Your task to perform on an android device: check out phone information Image 0: 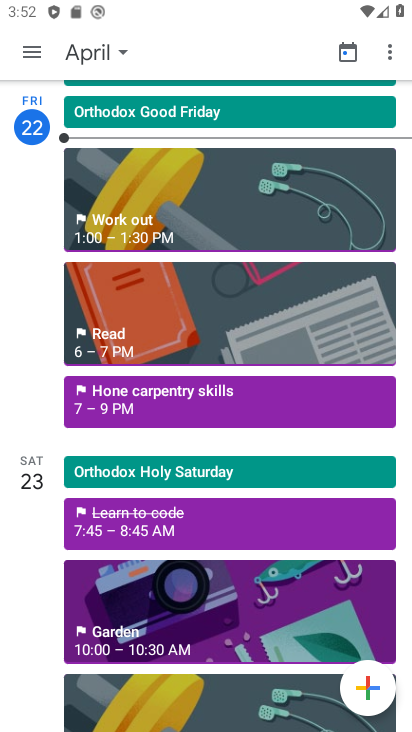
Step 0: press home button
Your task to perform on an android device: check out phone information Image 1: 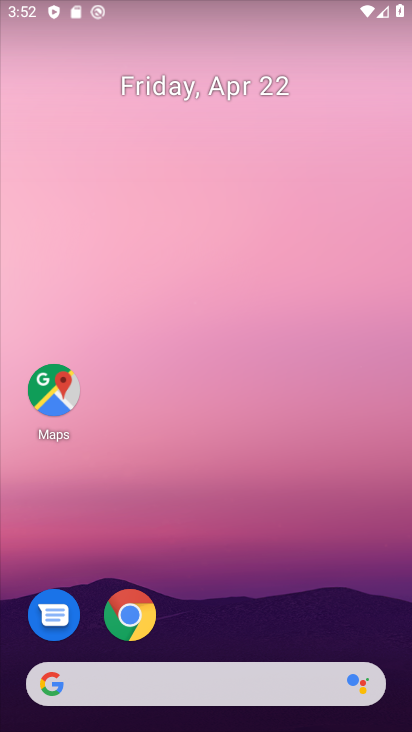
Step 1: drag from (312, 581) to (390, 147)
Your task to perform on an android device: check out phone information Image 2: 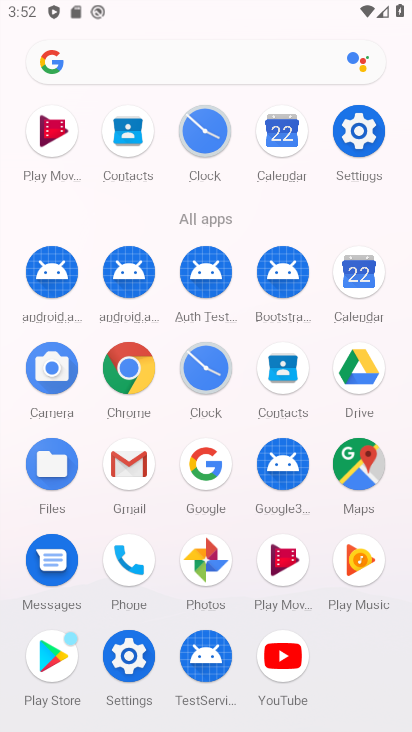
Step 2: click (133, 564)
Your task to perform on an android device: check out phone information Image 3: 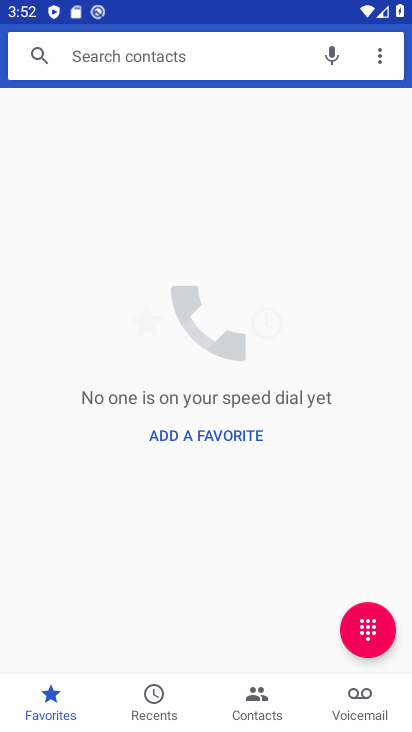
Step 3: click (379, 56)
Your task to perform on an android device: check out phone information Image 4: 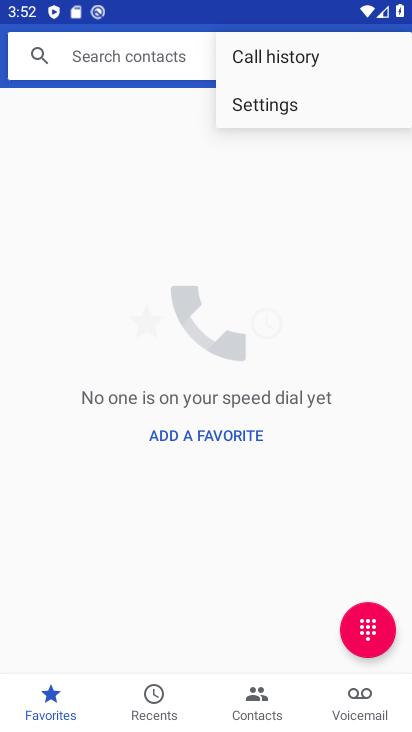
Step 4: click (290, 108)
Your task to perform on an android device: check out phone information Image 5: 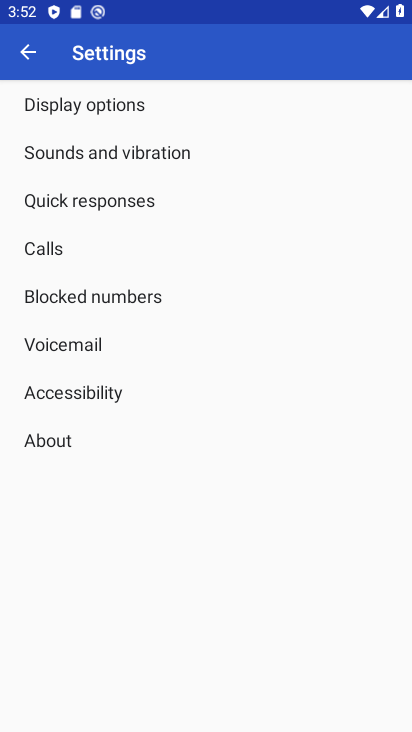
Step 5: click (83, 438)
Your task to perform on an android device: check out phone information Image 6: 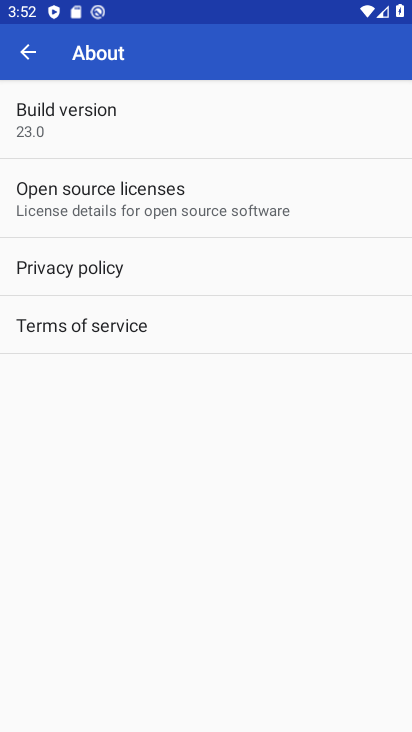
Step 6: task complete